Your task to perform on an android device: turn on translation in the chrome app Image 0: 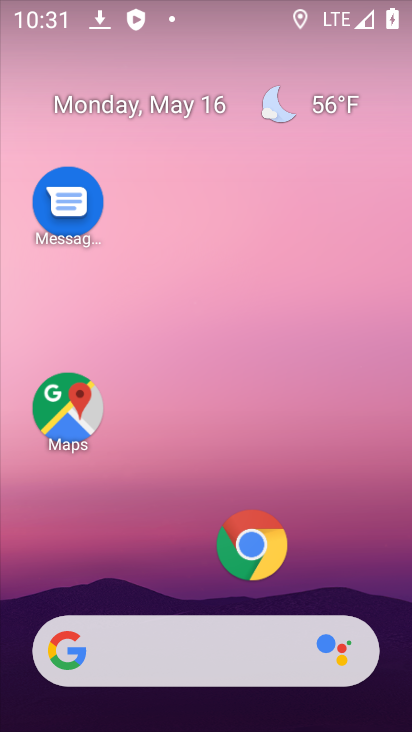
Step 0: click (238, 547)
Your task to perform on an android device: turn on translation in the chrome app Image 1: 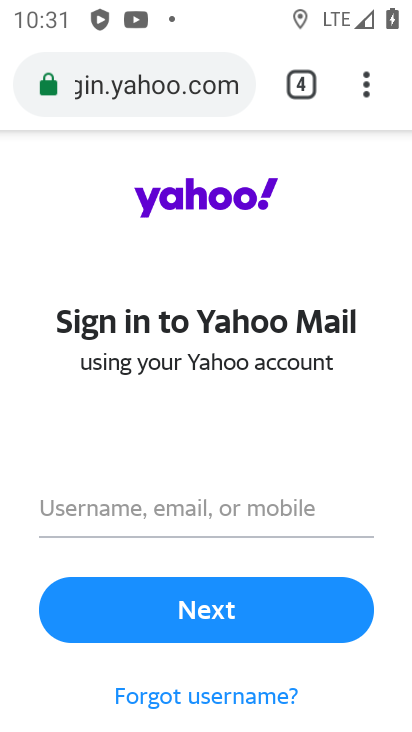
Step 1: click (359, 95)
Your task to perform on an android device: turn on translation in the chrome app Image 2: 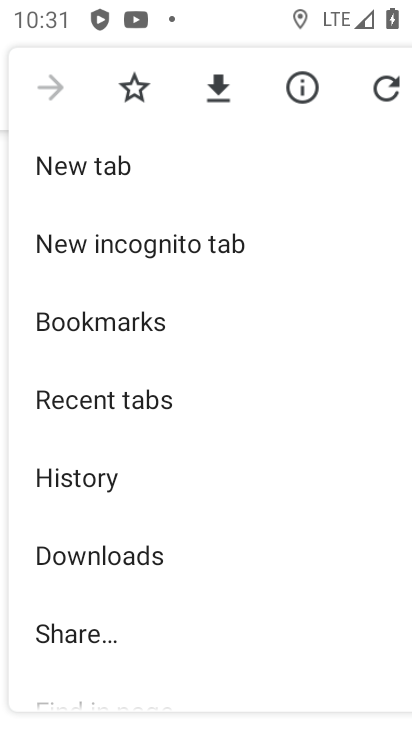
Step 2: drag from (217, 590) to (173, 169)
Your task to perform on an android device: turn on translation in the chrome app Image 3: 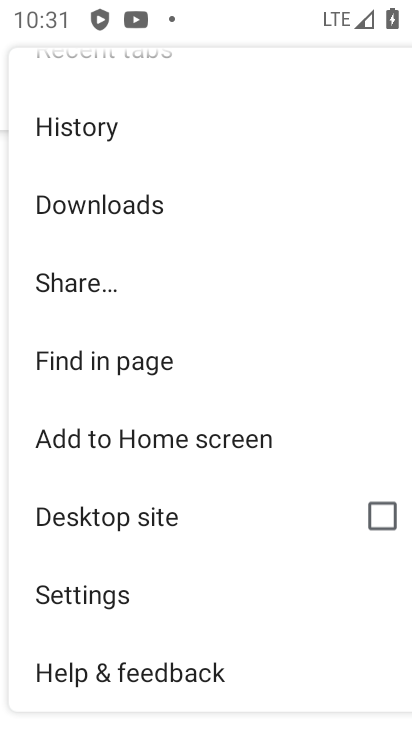
Step 3: click (52, 584)
Your task to perform on an android device: turn on translation in the chrome app Image 4: 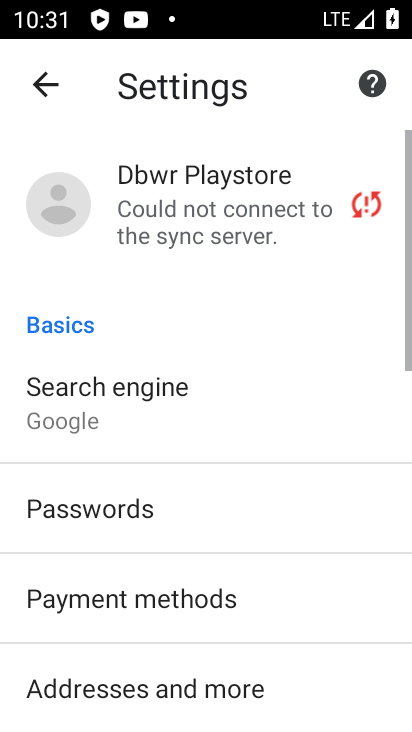
Step 4: drag from (105, 597) to (55, 148)
Your task to perform on an android device: turn on translation in the chrome app Image 5: 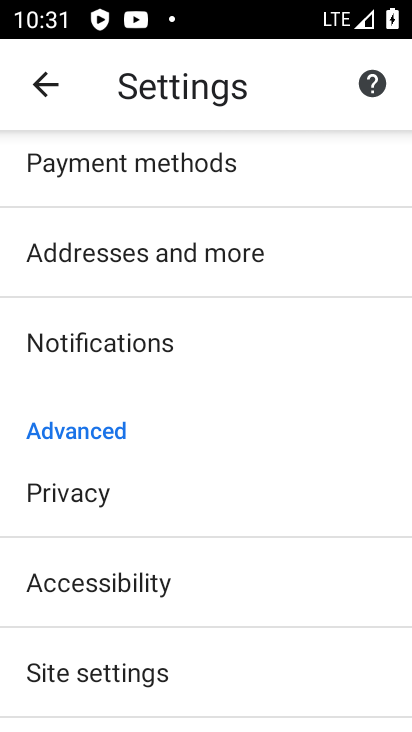
Step 5: drag from (109, 529) to (55, 180)
Your task to perform on an android device: turn on translation in the chrome app Image 6: 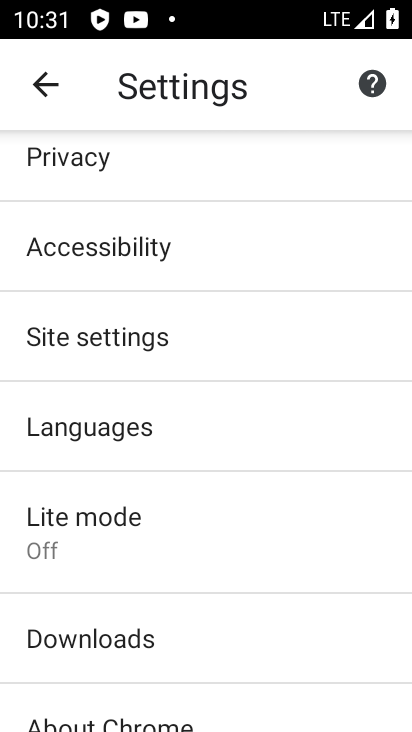
Step 6: click (60, 458)
Your task to perform on an android device: turn on translation in the chrome app Image 7: 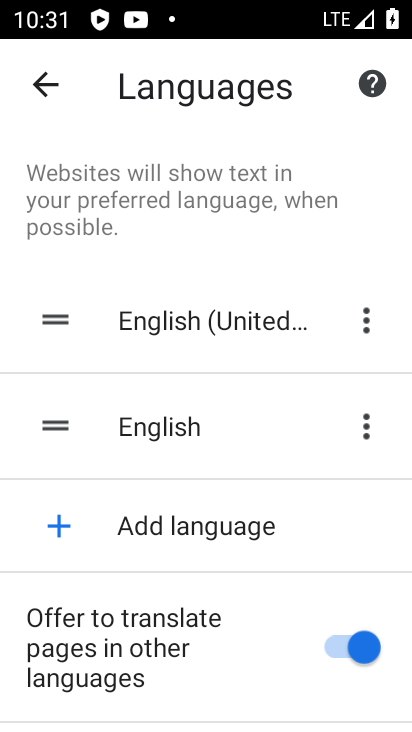
Step 7: task complete